Your task to perform on an android device: Add "beats solo 3" to the cart on costco Image 0: 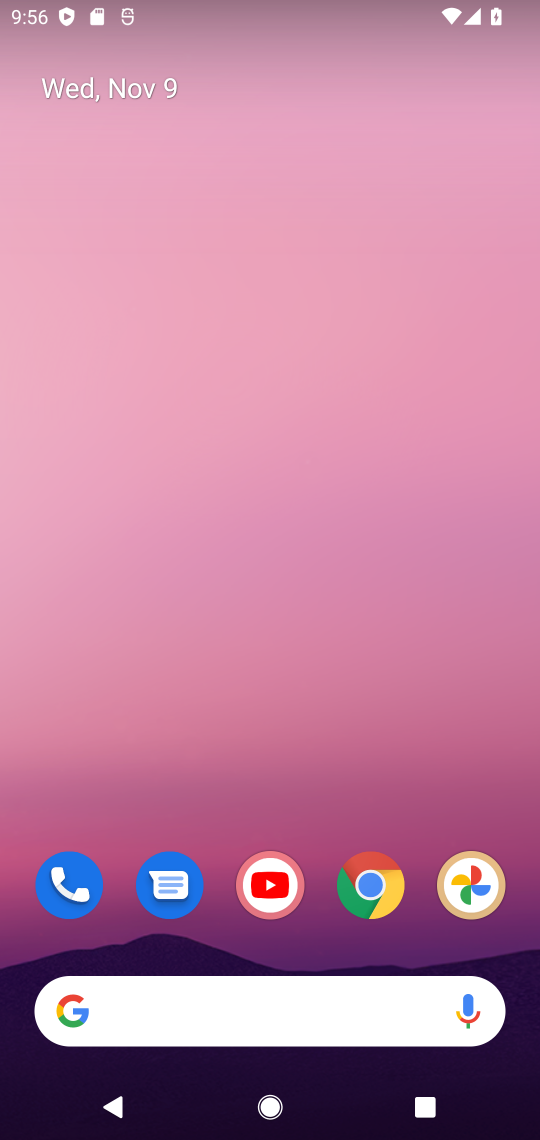
Step 0: click (382, 877)
Your task to perform on an android device: Add "beats solo 3" to the cart on costco Image 1: 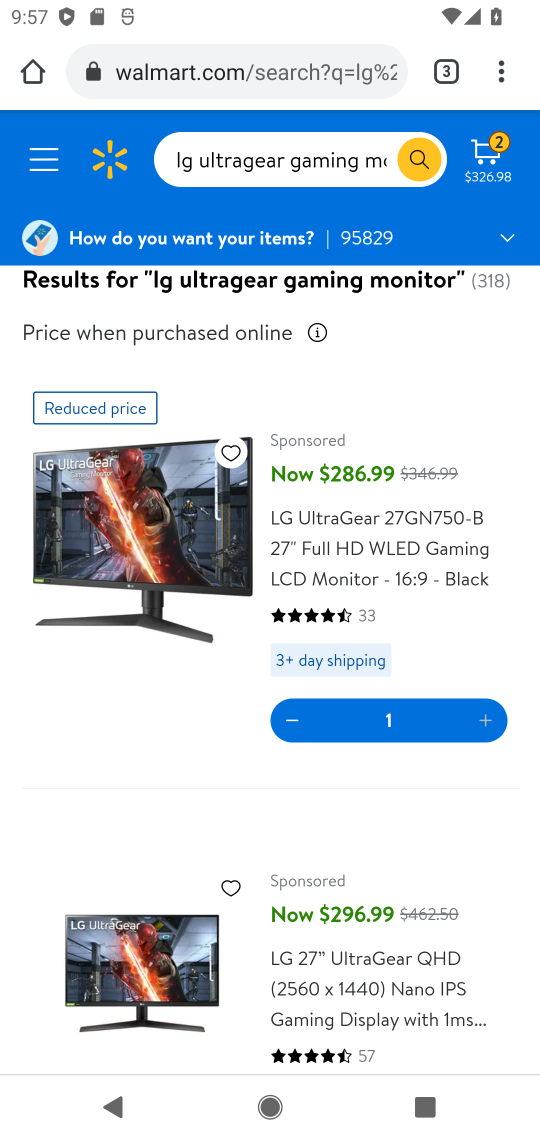
Step 1: click (449, 70)
Your task to perform on an android device: Add "beats solo 3" to the cart on costco Image 2: 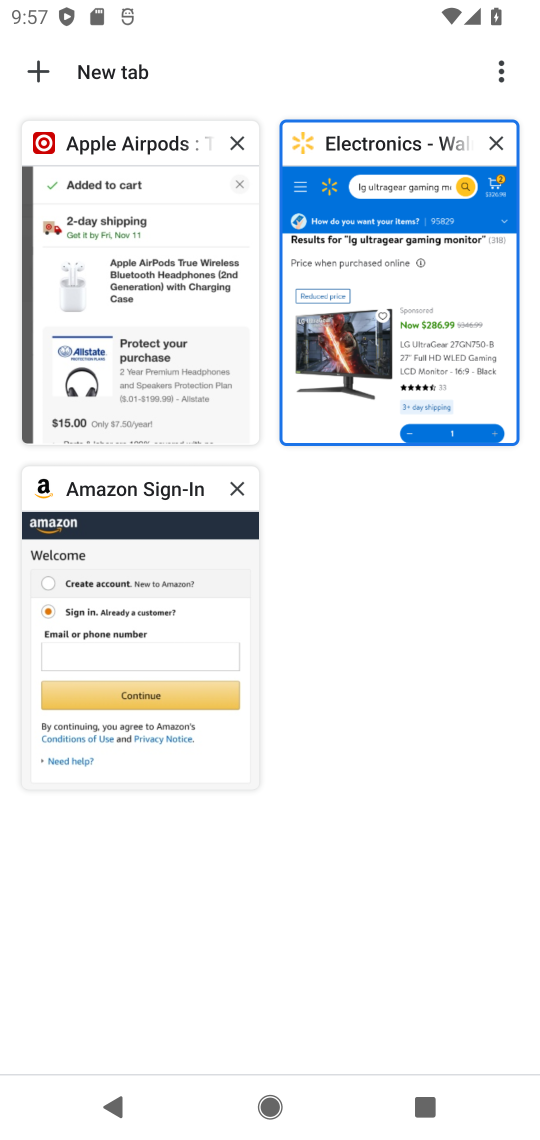
Step 2: click (39, 79)
Your task to perform on an android device: Add "beats solo 3" to the cart on costco Image 3: 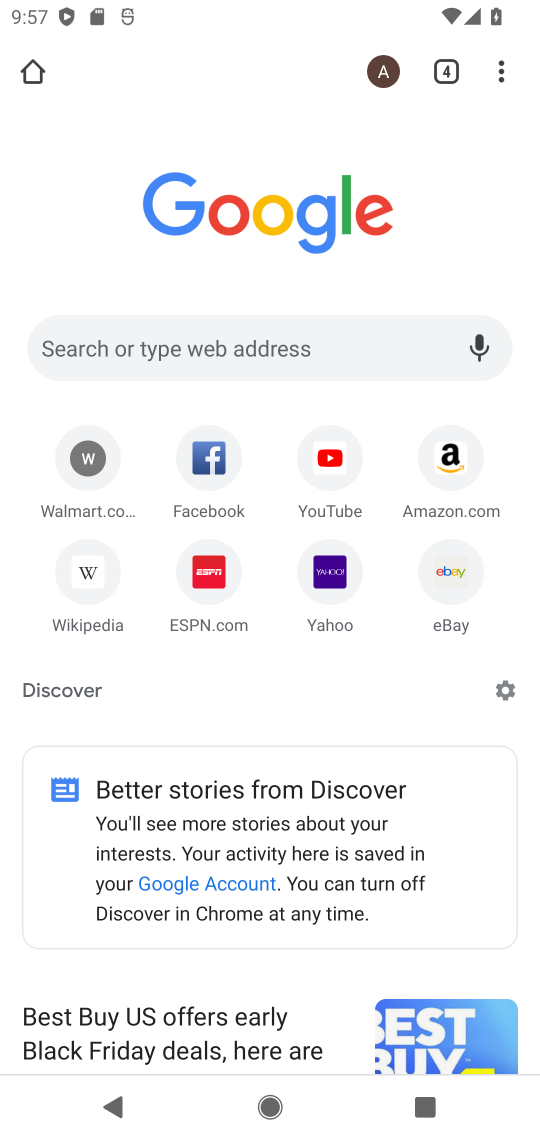
Step 3: click (177, 343)
Your task to perform on an android device: Add "beats solo 3" to the cart on costco Image 4: 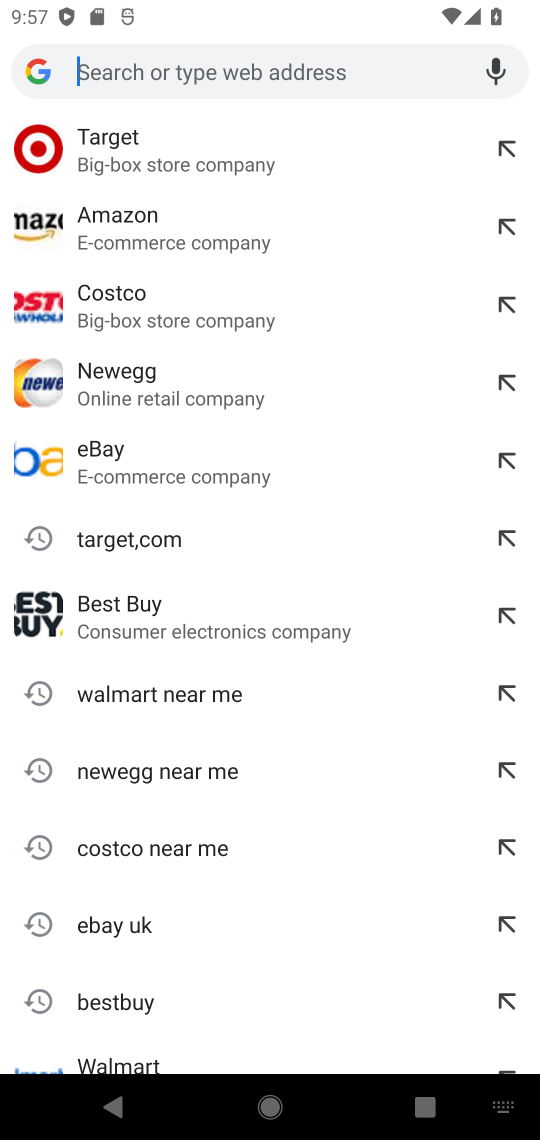
Step 4: click (155, 314)
Your task to perform on an android device: Add "beats solo 3" to the cart on costco Image 5: 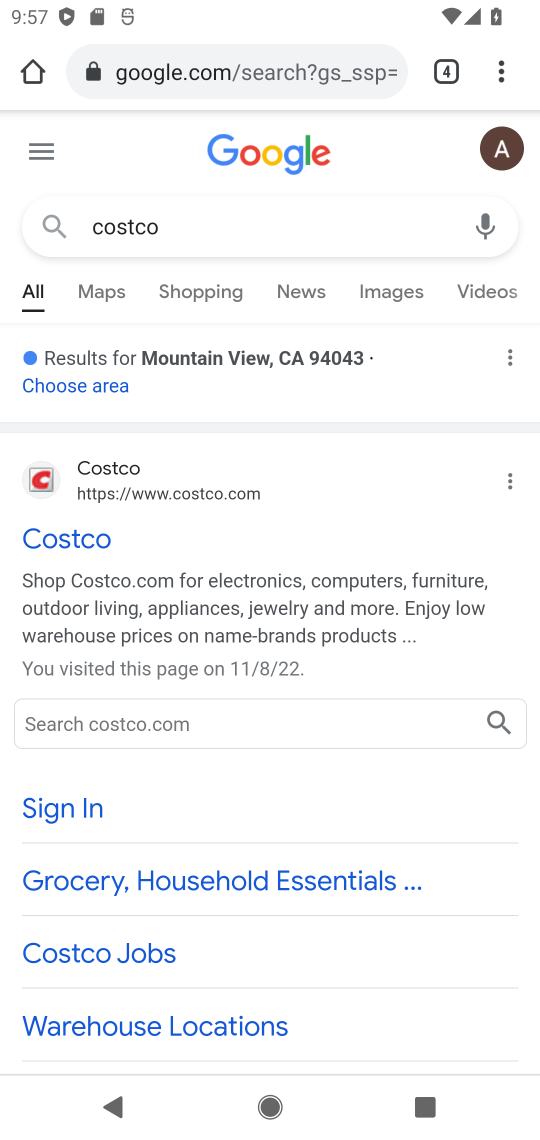
Step 5: click (87, 729)
Your task to perform on an android device: Add "beats solo 3" to the cart on costco Image 6: 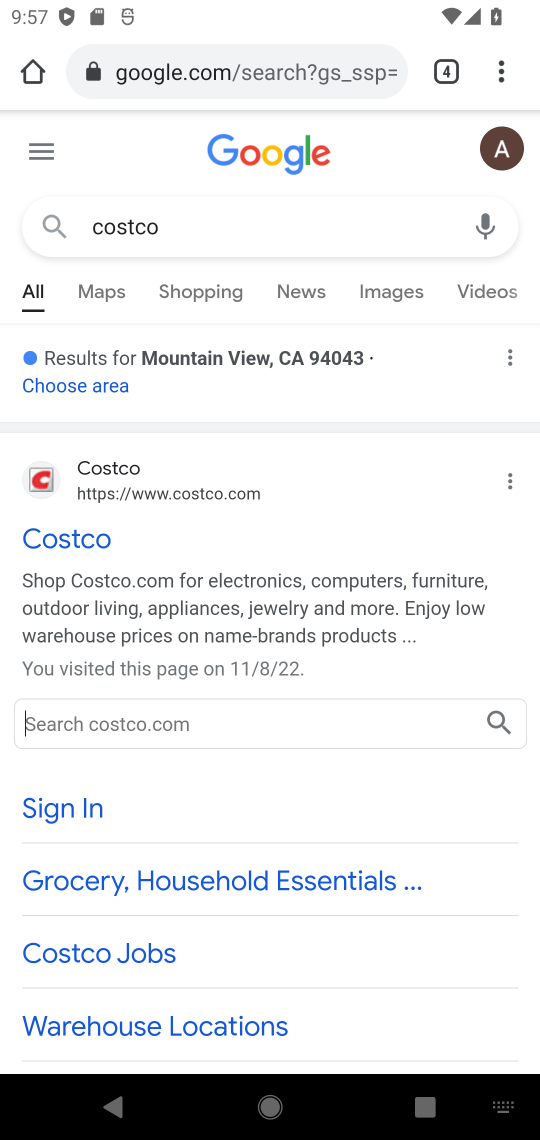
Step 6: type "beats solo 3"
Your task to perform on an android device: Add "beats solo 3" to the cart on costco Image 7: 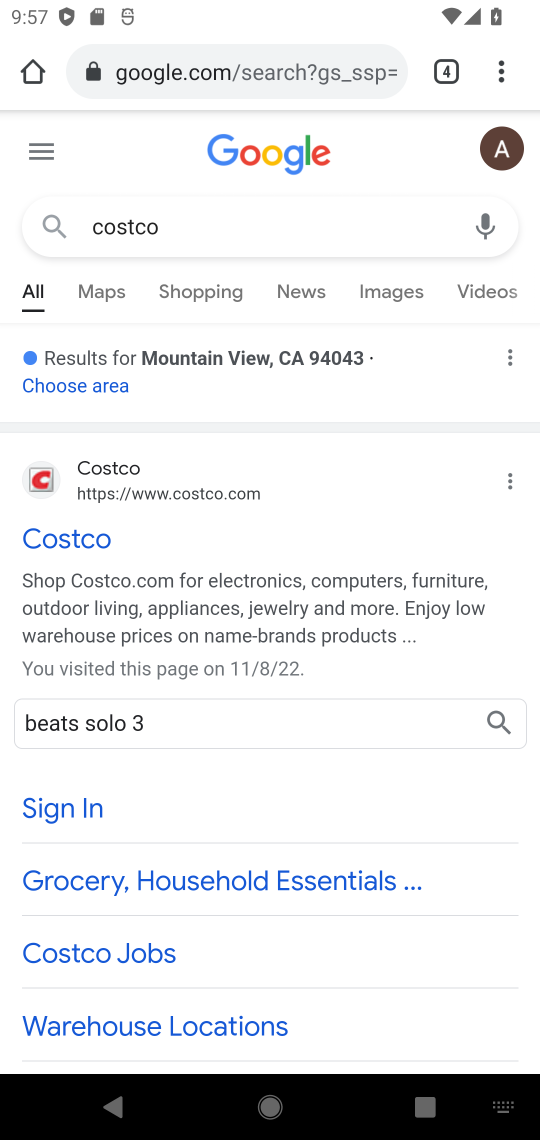
Step 7: click (495, 712)
Your task to perform on an android device: Add "beats solo 3" to the cart on costco Image 8: 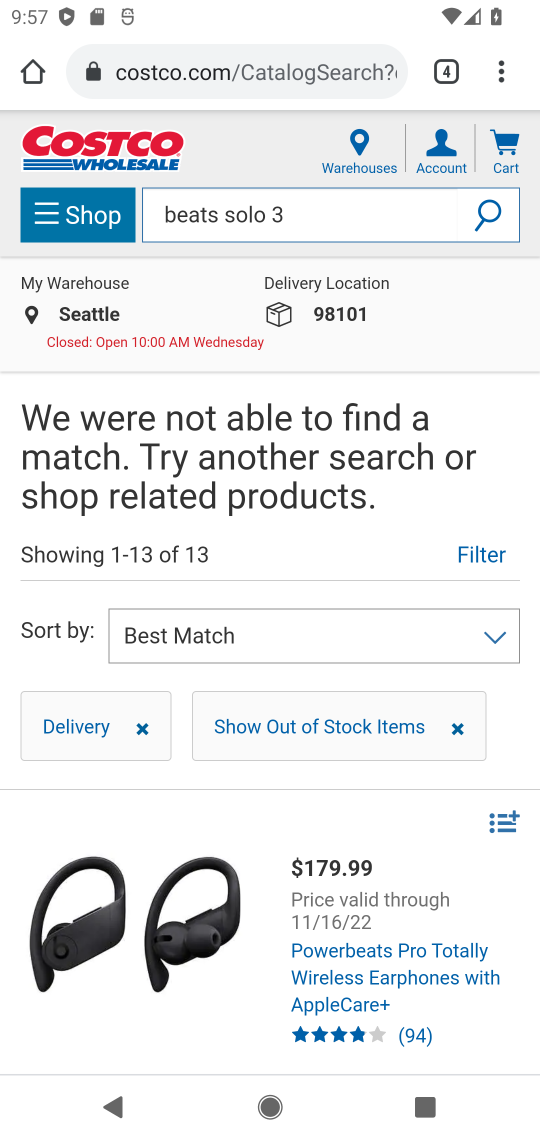
Step 8: click (489, 209)
Your task to perform on an android device: Add "beats solo 3" to the cart on costco Image 9: 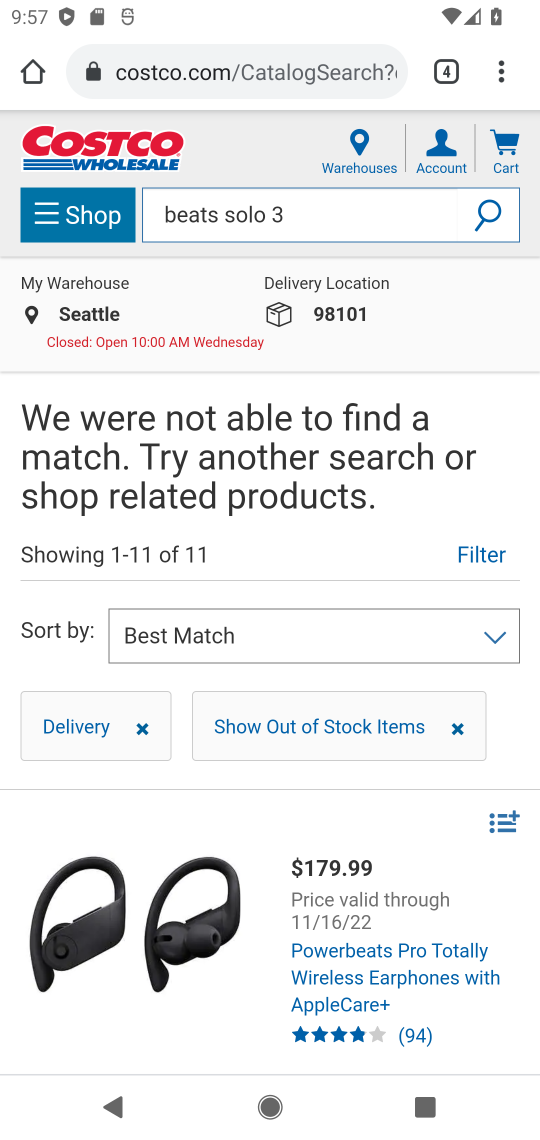
Step 9: task complete